Your task to perform on an android device: open app "Adobe Acrobat Reader: Edit PDF" (install if not already installed) Image 0: 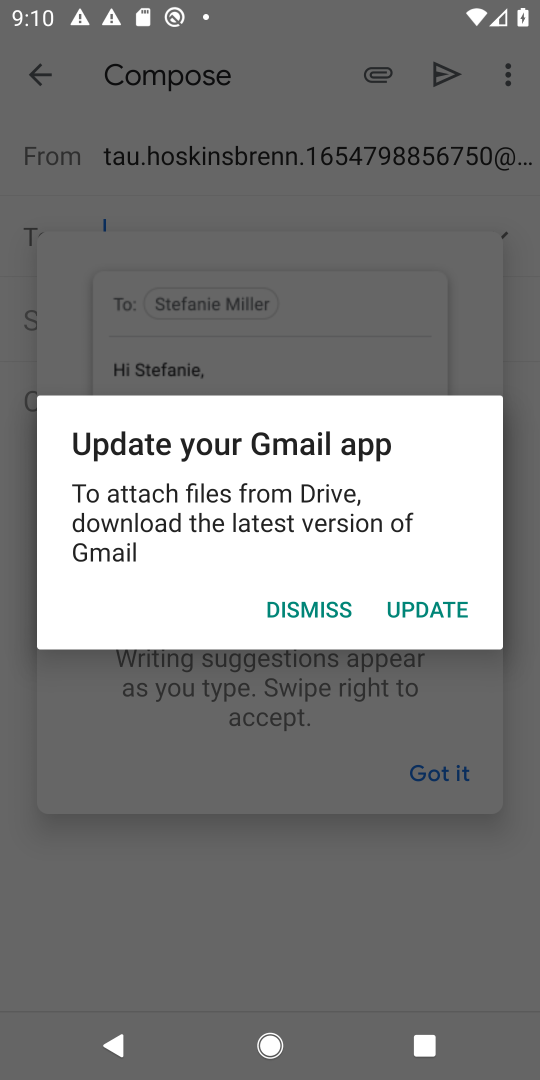
Step 0: press home button
Your task to perform on an android device: open app "Adobe Acrobat Reader: Edit PDF" (install if not already installed) Image 1: 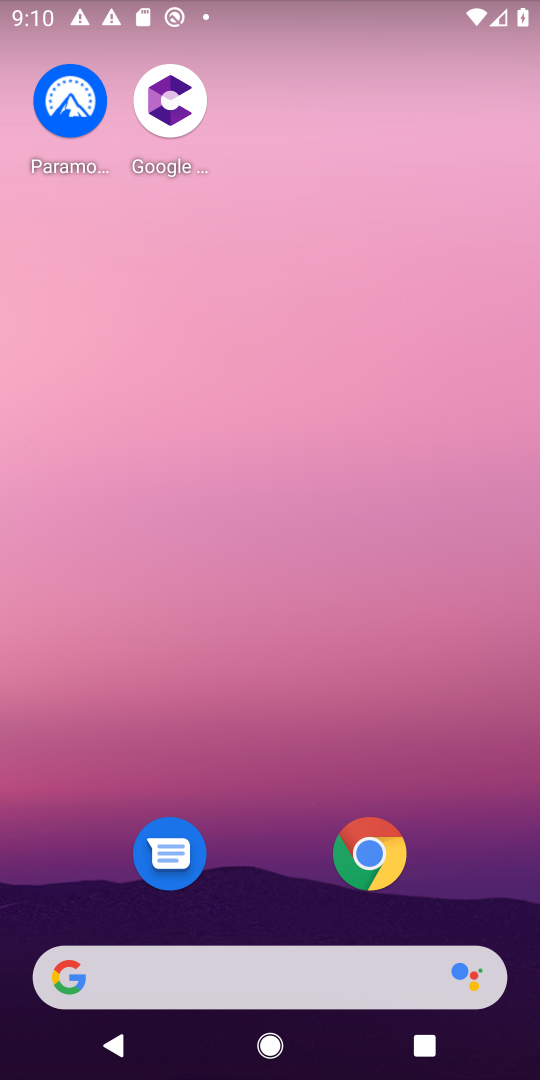
Step 1: drag from (252, 876) to (308, 218)
Your task to perform on an android device: open app "Adobe Acrobat Reader: Edit PDF" (install if not already installed) Image 2: 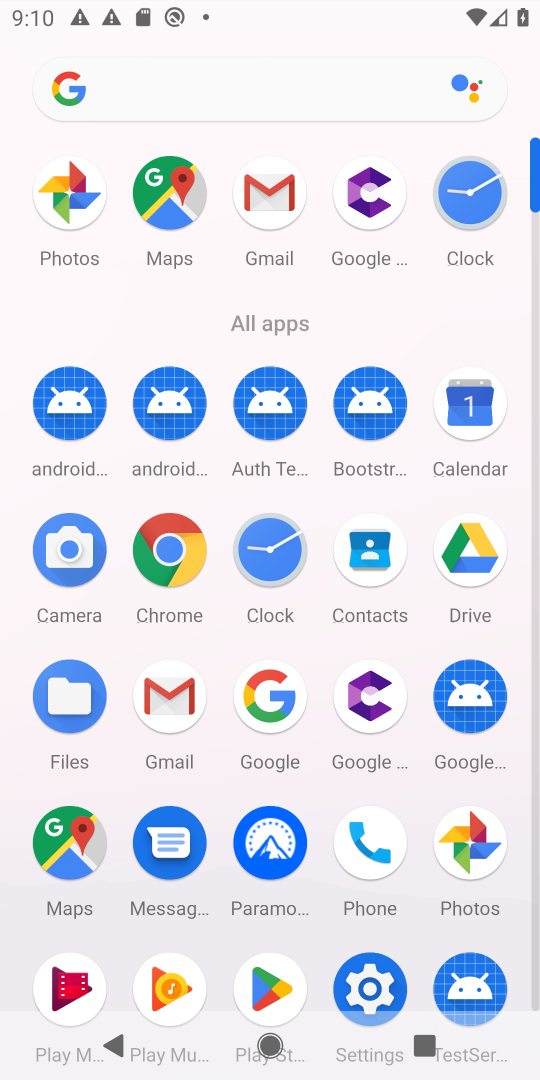
Step 2: drag from (226, 752) to (232, 245)
Your task to perform on an android device: open app "Adobe Acrobat Reader: Edit PDF" (install if not already installed) Image 3: 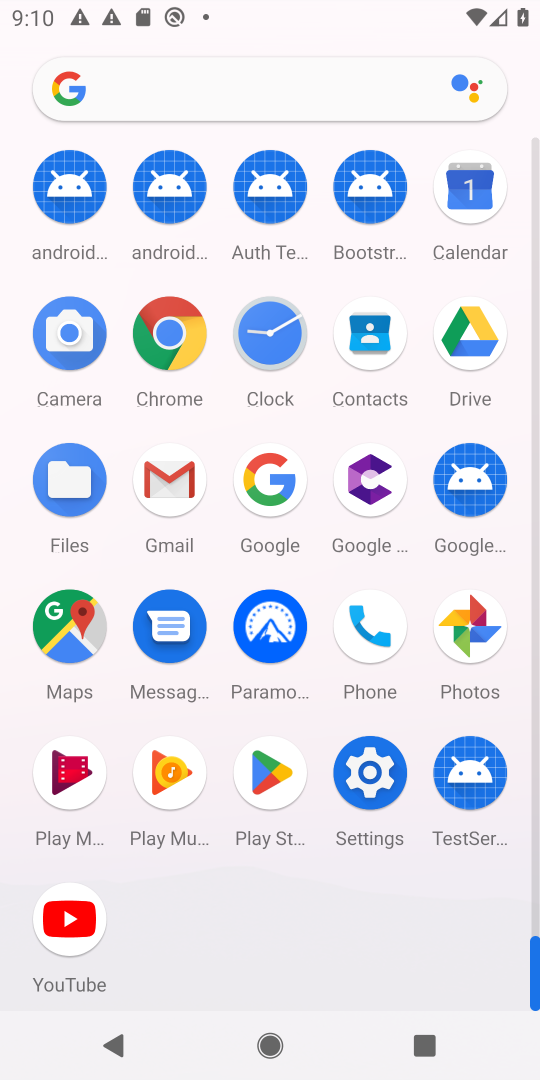
Step 3: drag from (298, 924) to (302, 251)
Your task to perform on an android device: open app "Adobe Acrobat Reader: Edit PDF" (install if not already installed) Image 4: 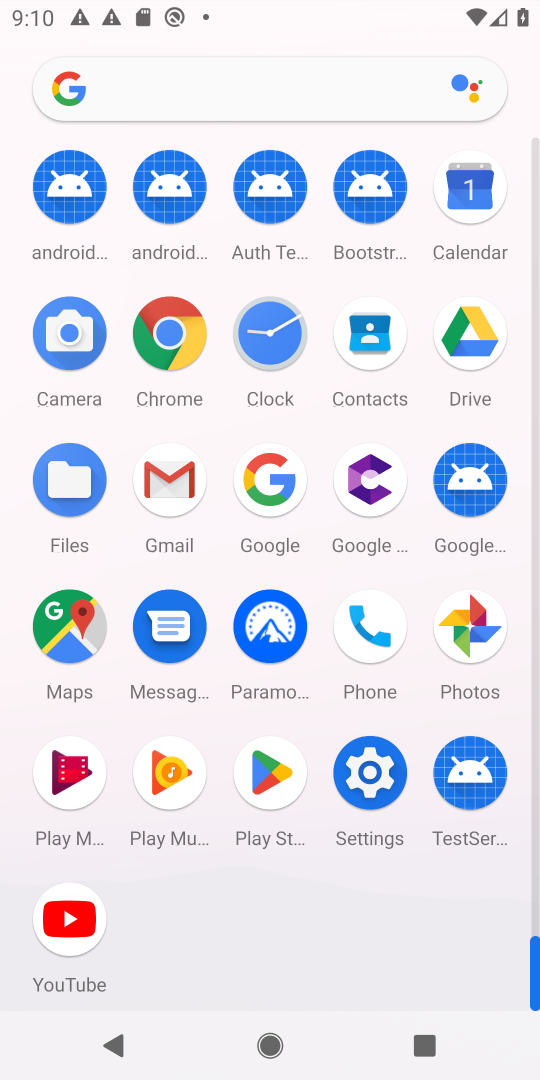
Step 4: click (261, 759)
Your task to perform on an android device: open app "Adobe Acrobat Reader: Edit PDF" (install if not already installed) Image 5: 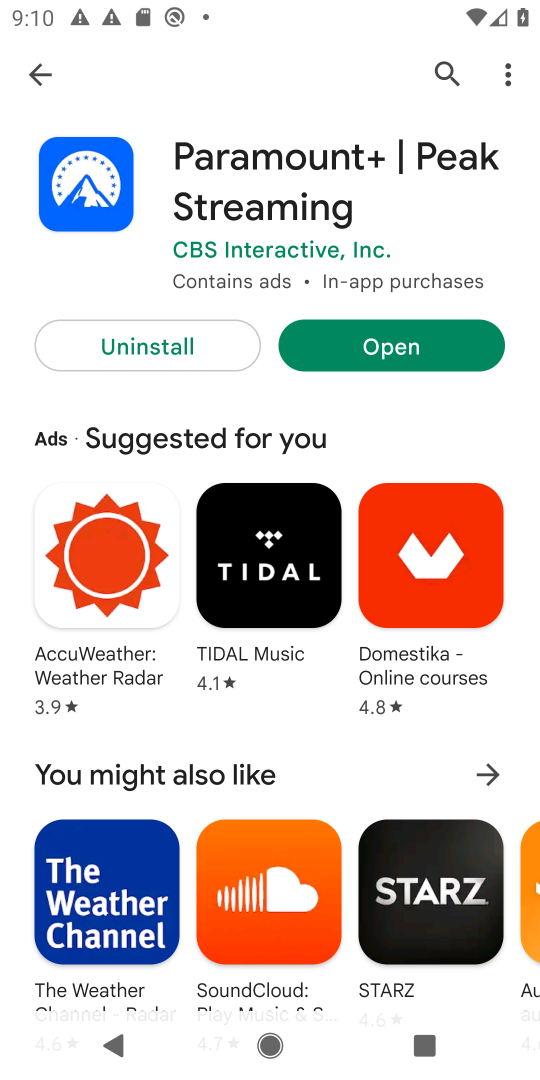
Step 5: click (446, 73)
Your task to perform on an android device: open app "Adobe Acrobat Reader: Edit PDF" (install if not already installed) Image 6: 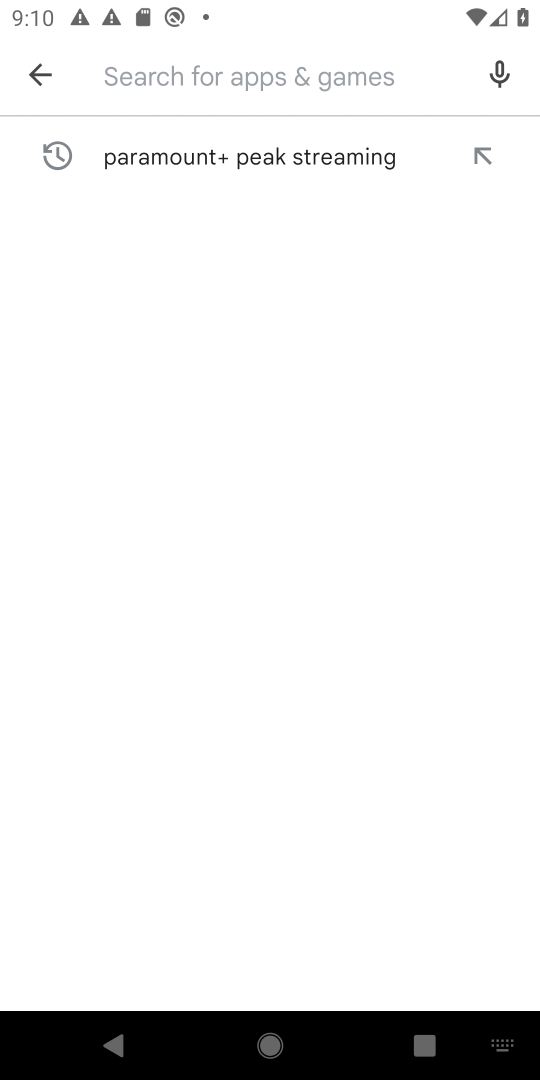
Step 6: type "Adobe Acrobat Reader: Edit PDF"
Your task to perform on an android device: open app "Adobe Acrobat Reader: Edit PDF" (install if not already installed) Image 7: 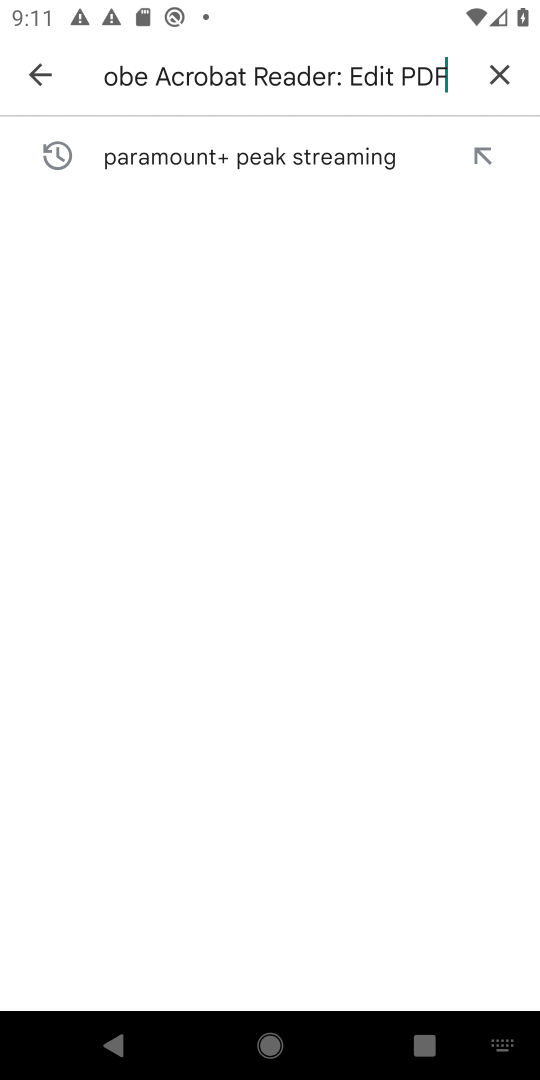
Step 7: type ""
Your task to perform on an android device: open app "Adobe Acrobat Reader: Edit PDF" (install if not already installed) Image 8: 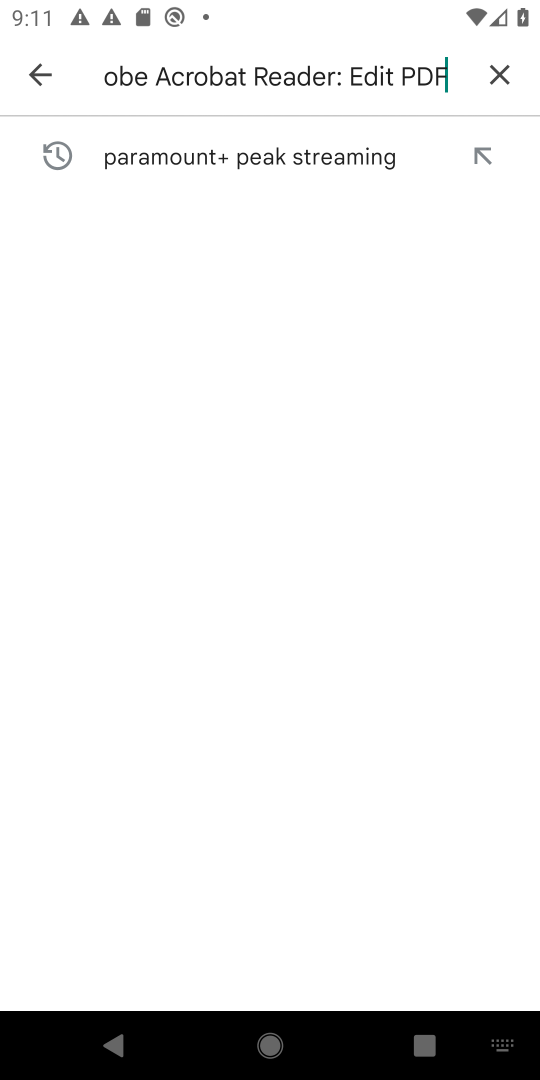
Step 8: click (228, 79)
Your task to perform on an android device: open app "Adobe Acrobat Reader: Edit PDF" (install if not already installed) Image 9: 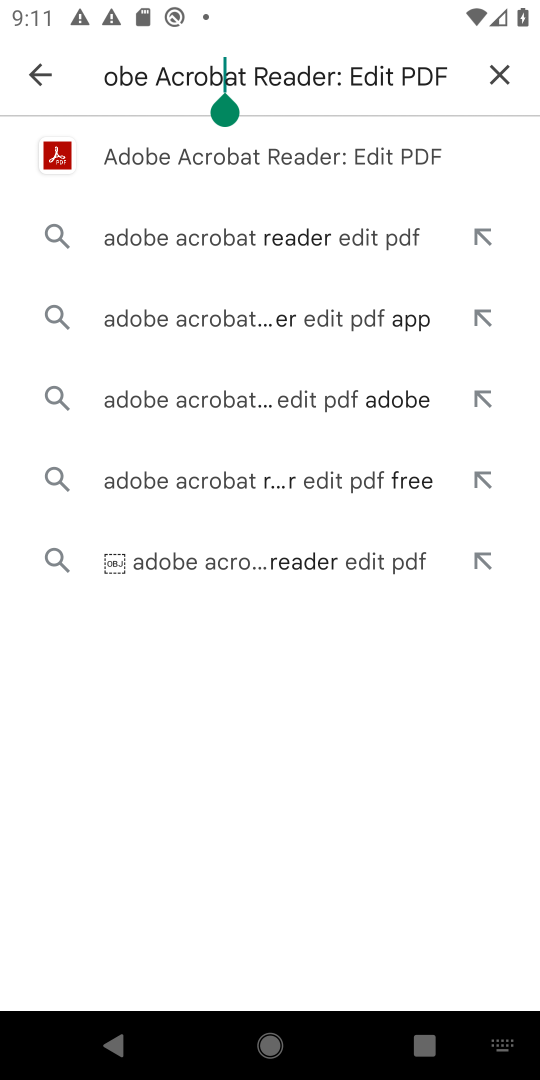
Step 9: click (253, 159)
Your task to perform on an android device: open app "Adobe Acrobat Reader: Edit PDF" (install if not already installed) Image 10: 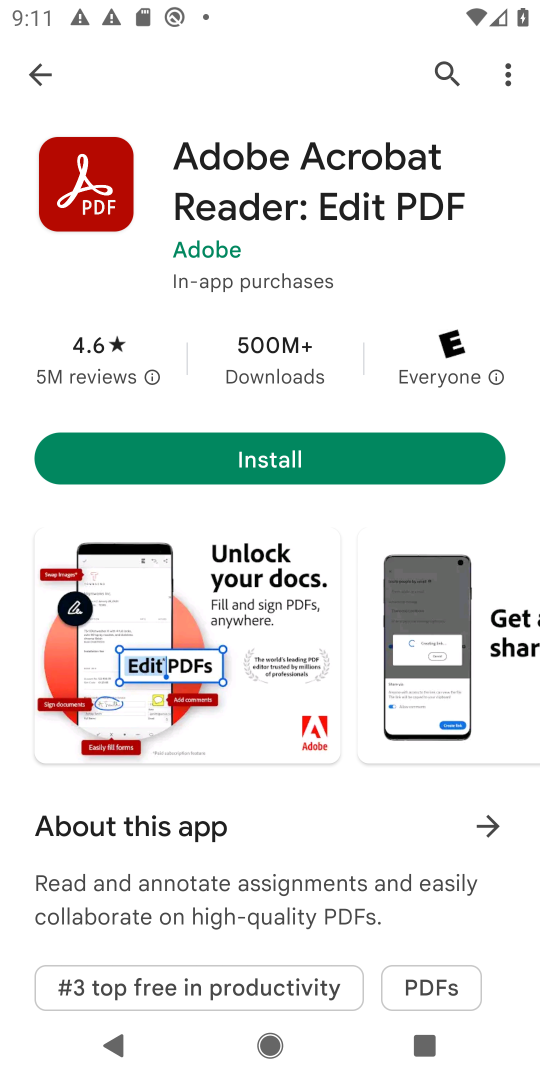
Step 10: drag from (305, 328) to (328, 640)
Your task to perform on an android device: open app "Adobe Acrobat Reader: Edit PDF" (install if not already installed) Image 11: 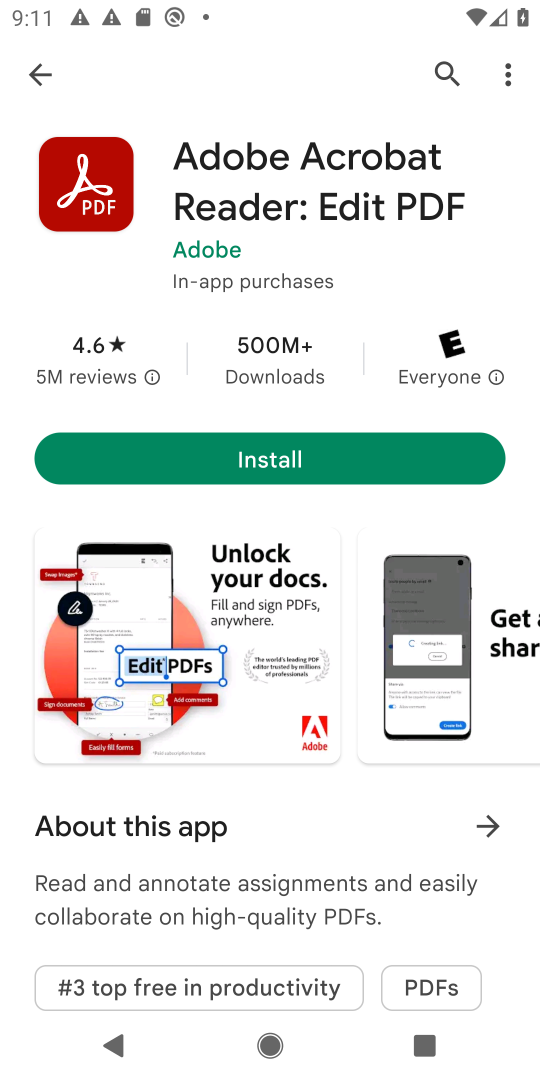
Step 11: click (212, 463)
Your task to perform on an android device: open app "Adobe Acrobat Reader: Edit PDF" (install if not already installed) Image 12: 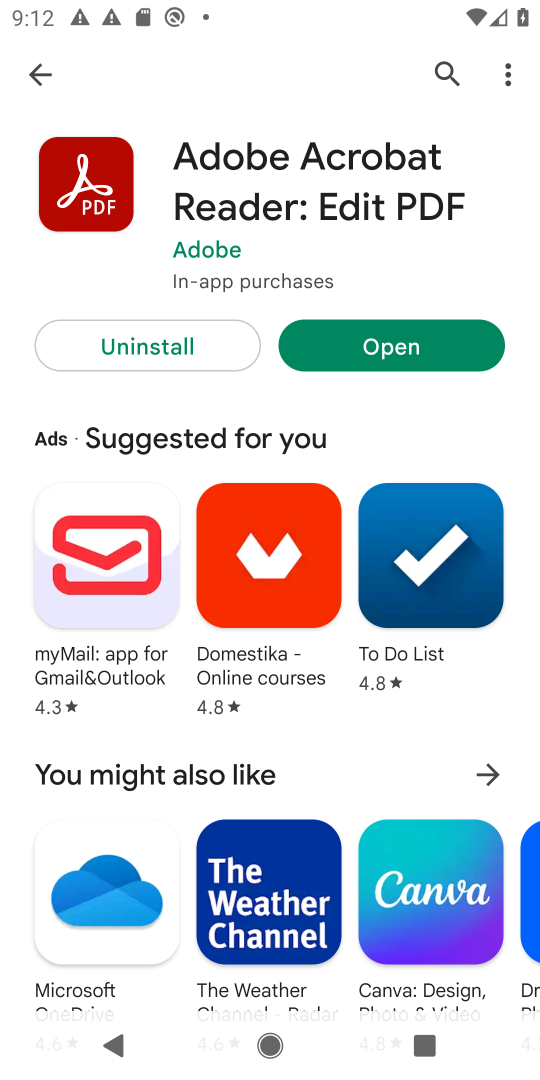
Step 12: click (358, 342)
Your task to perform on an android device: open app "Adobe Acrobat Reader: Edit PDF" (install if not already installed) Image 13: 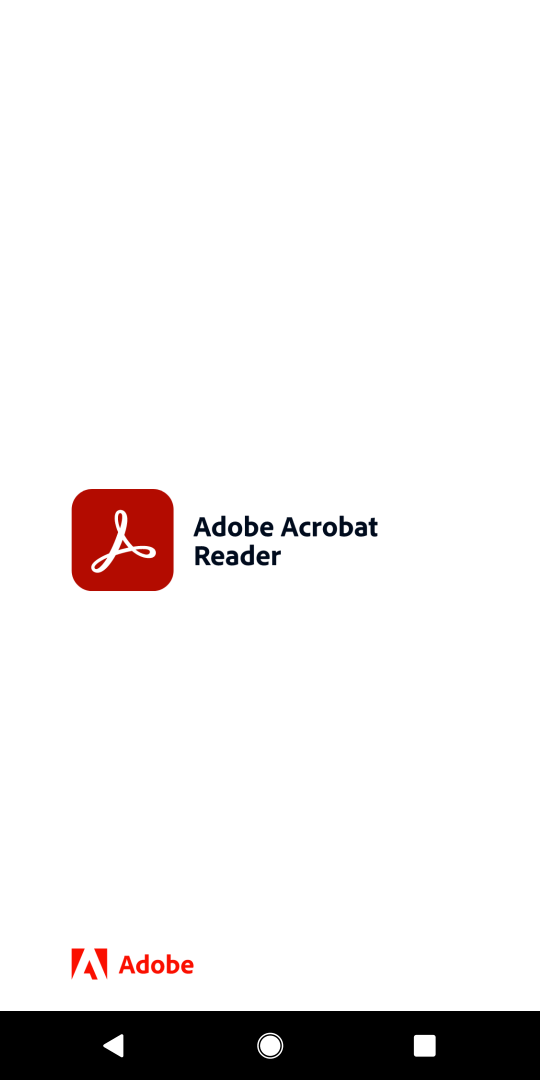
Step 13: task complete